Your task to perform on an android device: Open Yahoo.com Image 0: 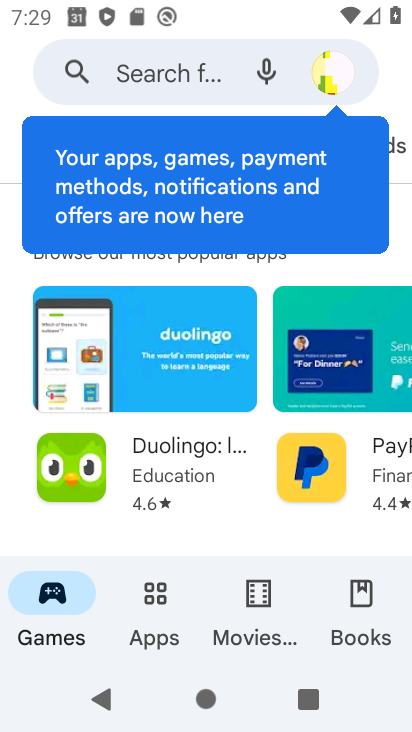
Step 0: press home button
Your task to perform on an android device: Open Yahoo.com Image 1: 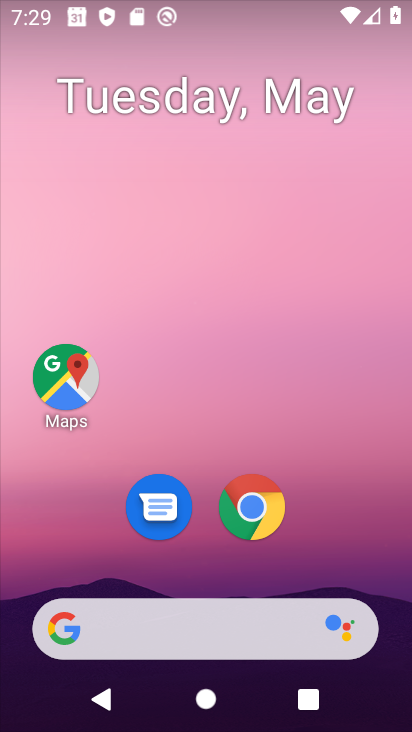
Step 1: click (260, 494)
Your task to perform on an android device: Open Yahoo.com Image 2: 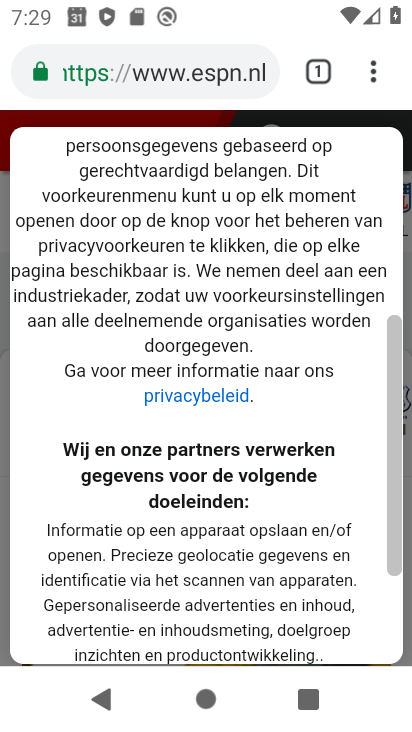
Step 2: click (246, 71)
Your task to perform on an android device: Open Yahoo.com Image 3: 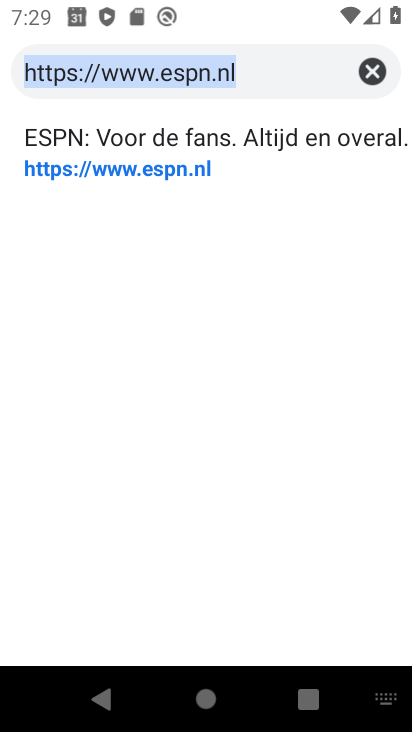
Step 3: type "yahoo.com"
Your task to perform on an android device: Open Yahoo.com Image 4: 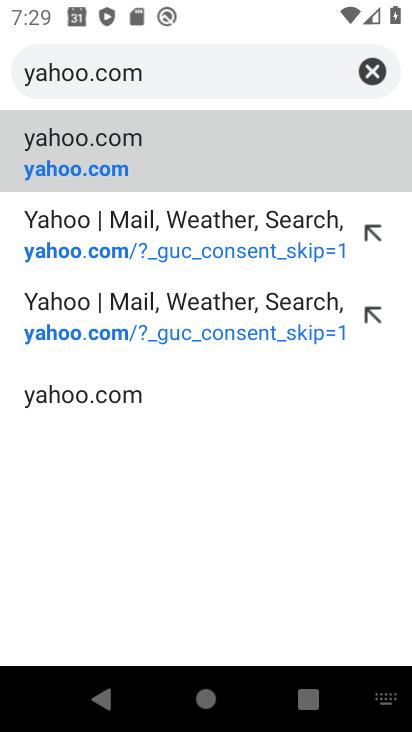
Step 4: click (274, 161)
Your task to perform on an android device: Open Yahoo.com Image 5: 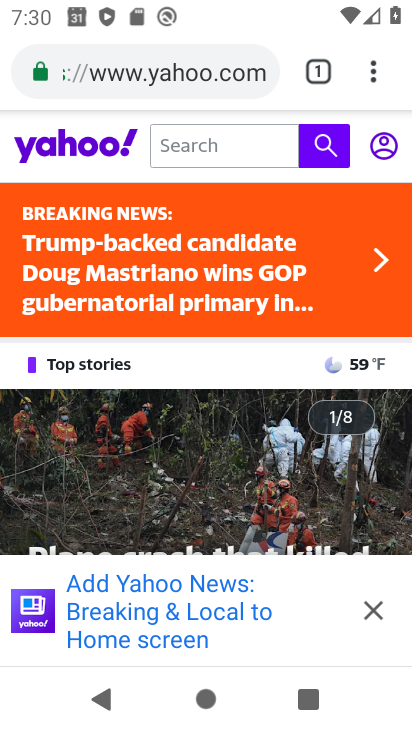
Step 5: task complete